Your task to perform on an android device: install app "Adobe Acrobat Reader" Image 0: 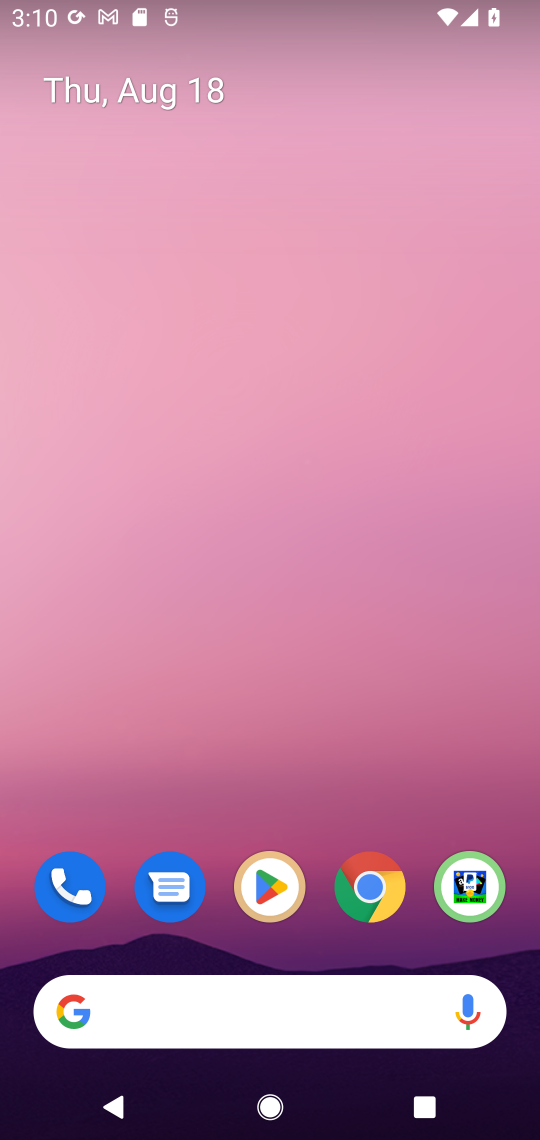
Step 0: press home button
Your task to perform on an android device: install app "Adobe Acrobat Reader" Image 1: 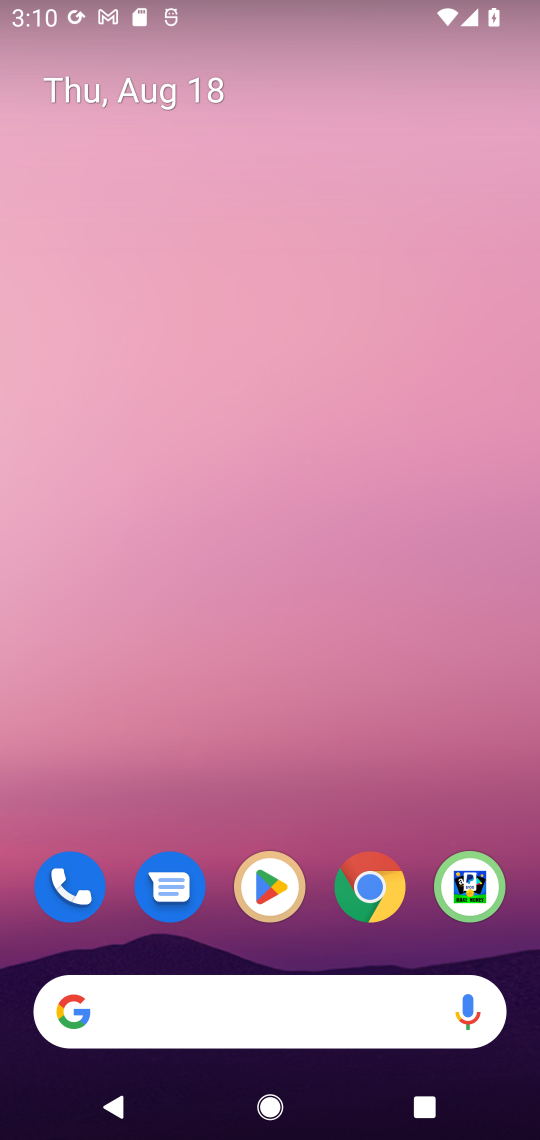
Step 1: click (261, 883)
Your task to perform on an android device: install app "Adobe Acrobat Reader" Image 2: 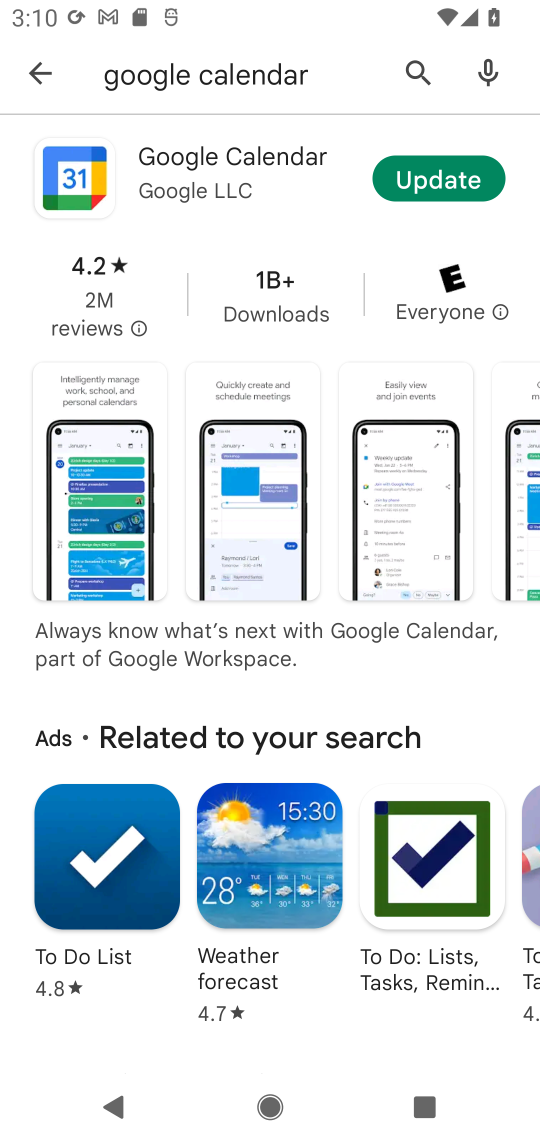
Step 2: click (409, 69)
Your task to perform on an android device: install app "Adobe Acrobat Reader" Image 3: 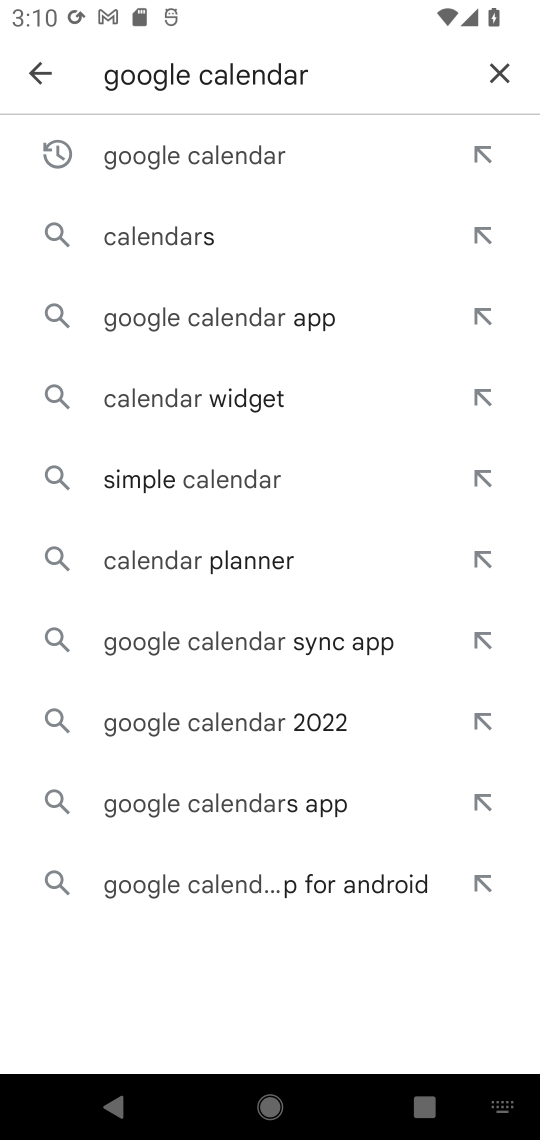
Step 3: click (503, 69)
Your task to perform on an android device: install app "Adobe Acrobat Reader" Image 4: 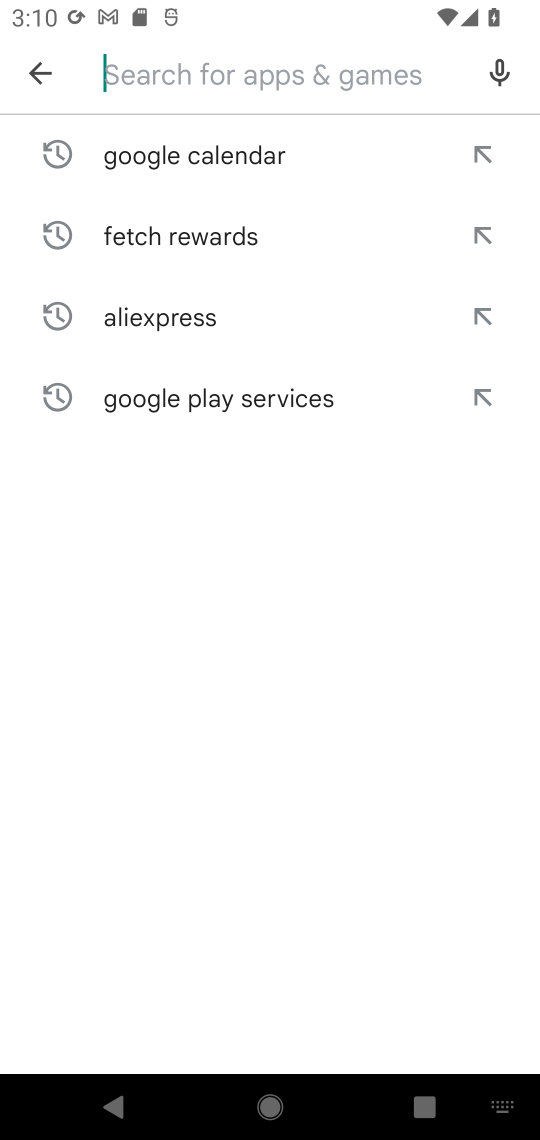
Step 4: type "Adobe Acrobat Reader"
Your task to perform on an android device: install app "Adobe Acrobat Reader" Image 5: 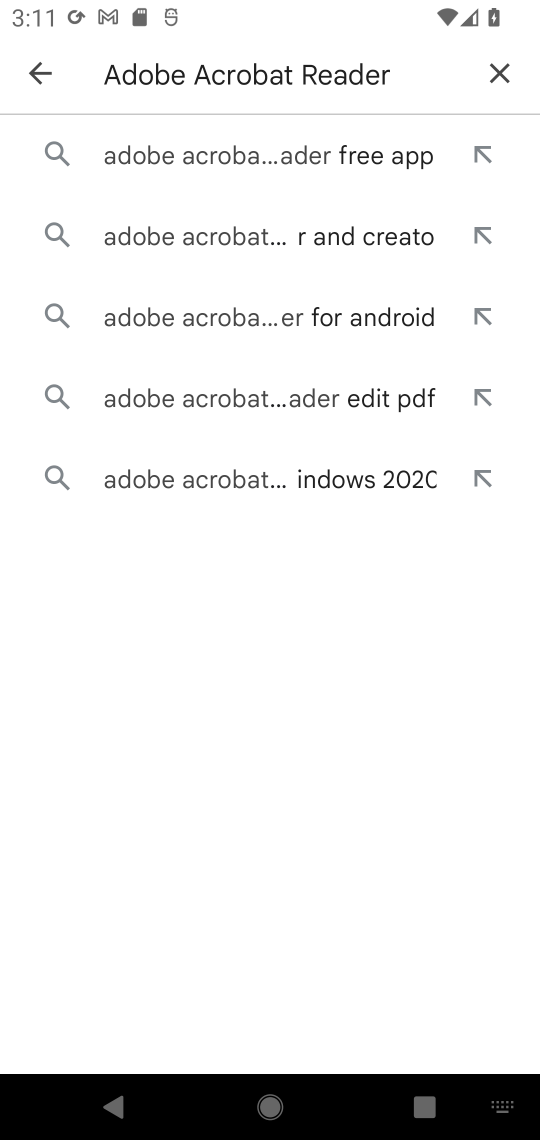
Step 5: click (215, 164)
Your task to perform on an android device: install app "Adobe Acrobat Reader" Image 6: 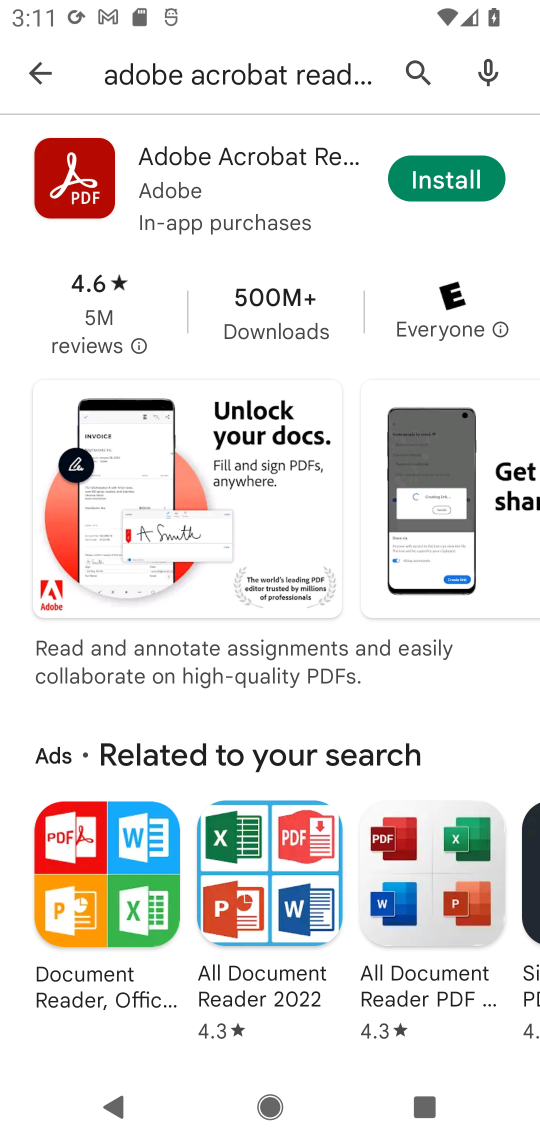
Step 6: click (440, 171)
Your task to perform on an android device: install app "Adobe Acrobat Reader" Image 7: 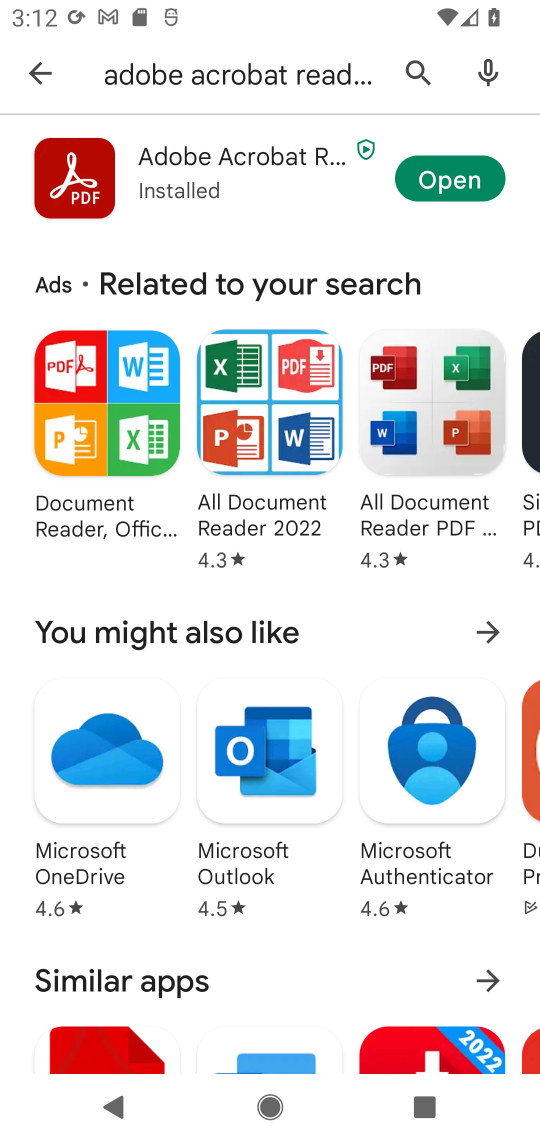
Step 7: click (463, 175)
Your task to perform on an android device: install app "Adobe Acrobat Reader" Image 8: 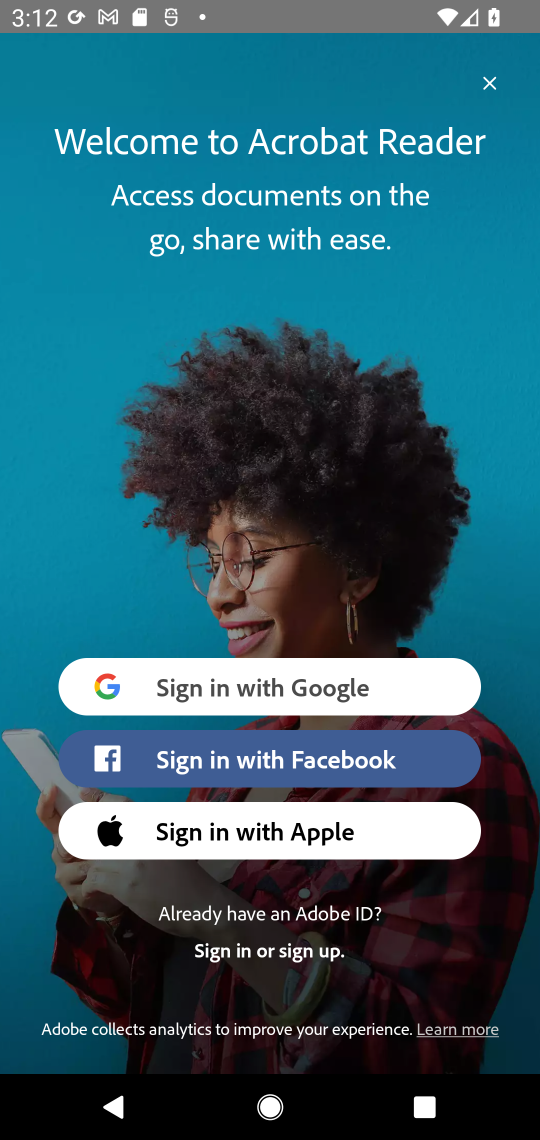
Step 8: click (260, 683)
Your task to perform on an android device: install app "Adobe Acrobat Reader" Image 9: 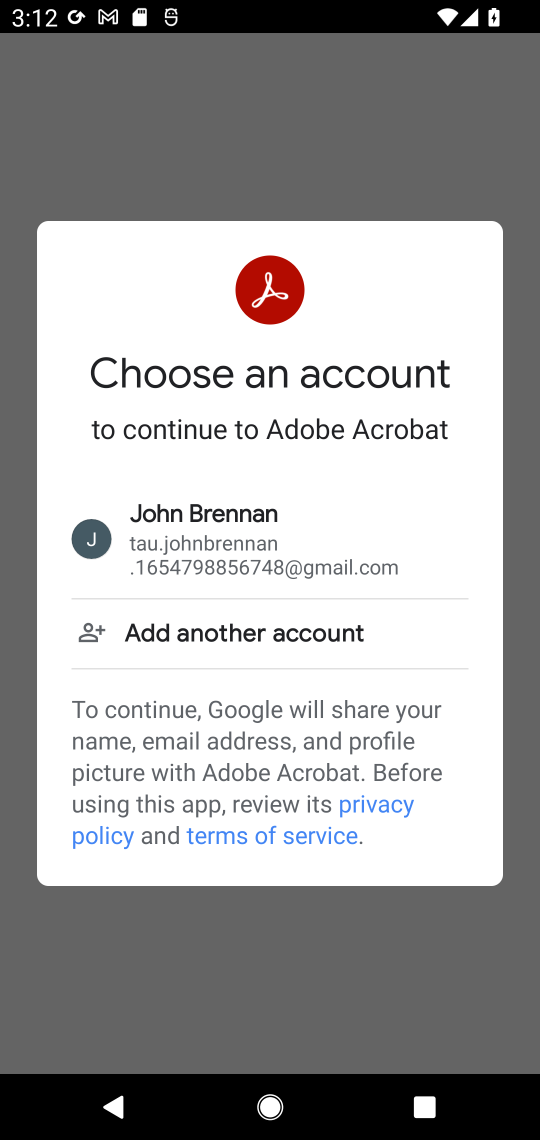
Step 9: click (172, 520)
Your task to perform on an android device: install app "Adobe Acrobat Reader" Image 10: 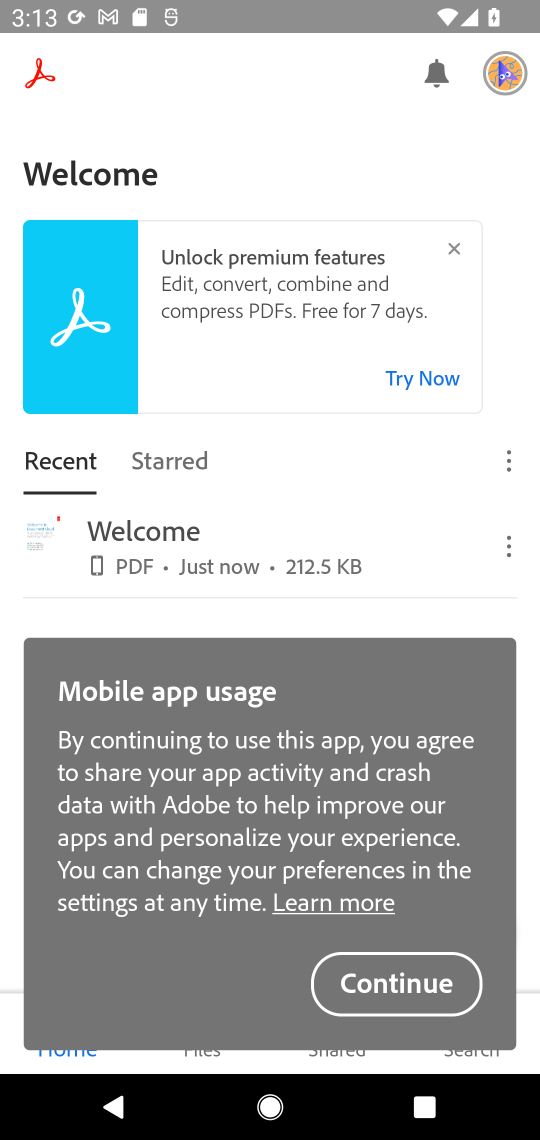
Step 10: task complete